Your task to perform on an android device: Go to settings Image 0: 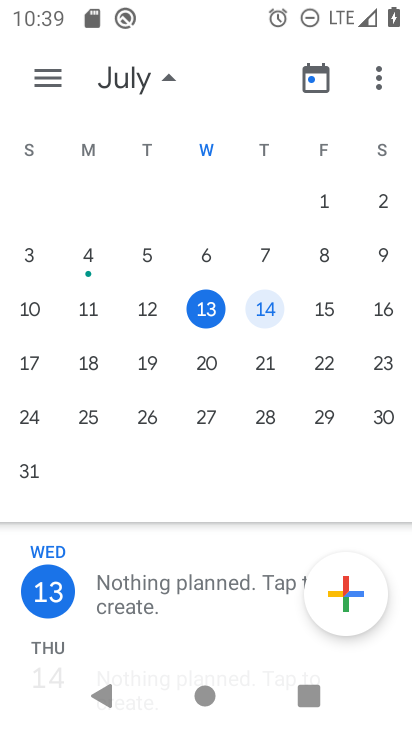
Step 0: press home button
Your task to perform on an android device: Go to settings Image 1: 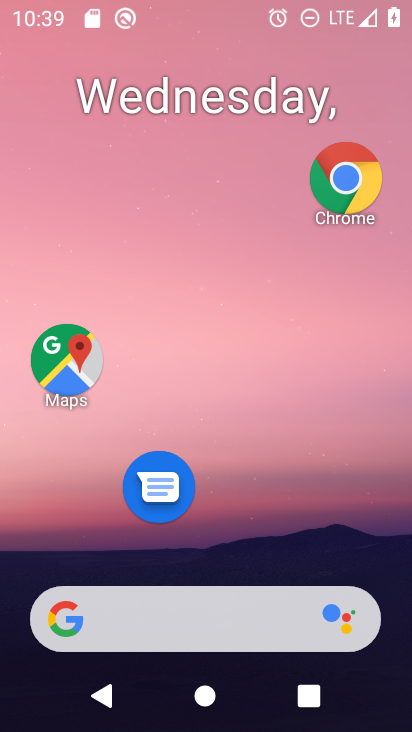
Step 1: drag from (195, 506) to (264, 119)
Your task to perform on an android device: Go to settings Image 2: 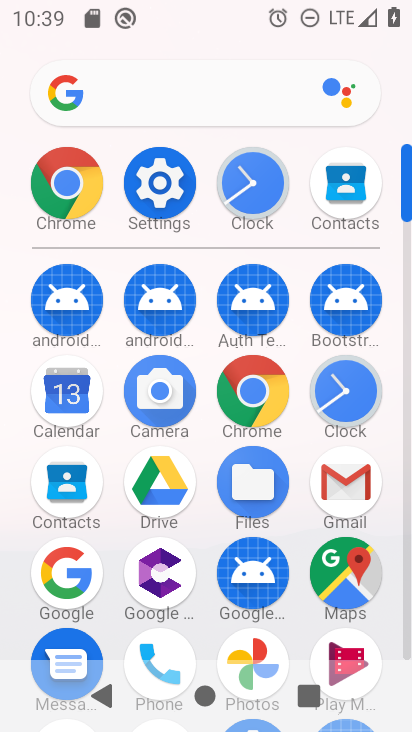
Step 2: click (165, 207)
Your task to perform on an android device: Go to settings Image 3: 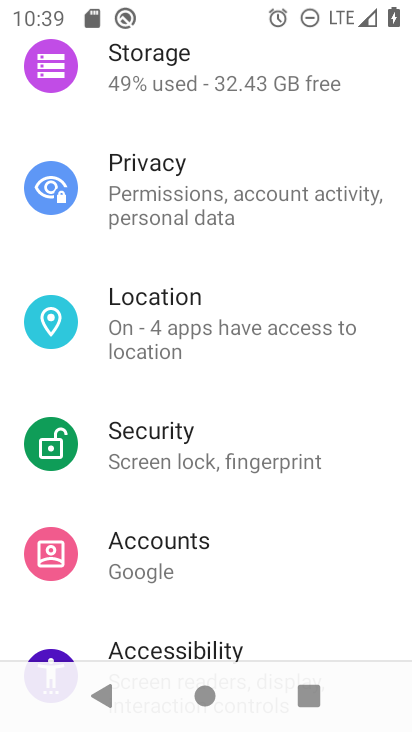
Step 3: task complete